Your task to perform on an android device: add a label to a message in the gmail app Image 0: 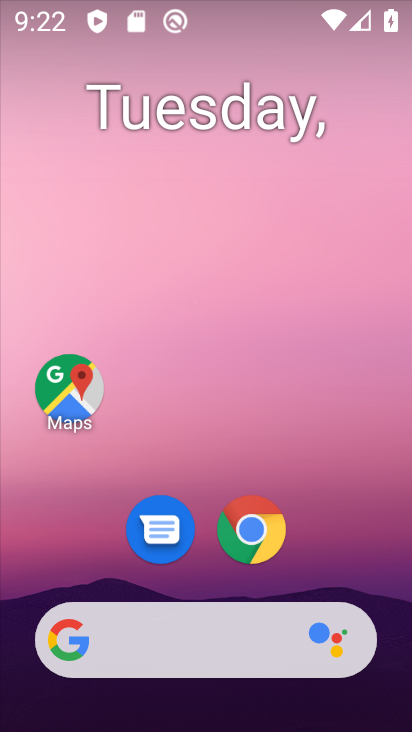
Step 0: drag from (123, 563) to (115, 28)
Your task to perform on an android device: add a label to a message in the gmail app Image 1: 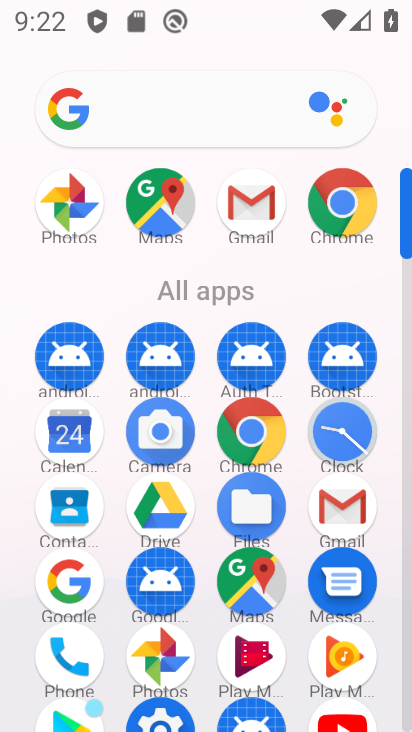
Step 1: click (251, 205)
Your task to perform on an android device: add a label to a message in the gmail app Image 2: 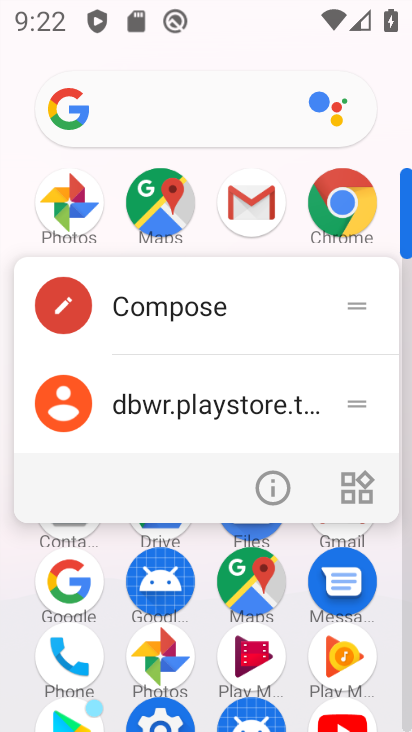
Step 2: click (251, 191)
Your task to perform on an android device: add a label to a message in the gmail app Image 3: 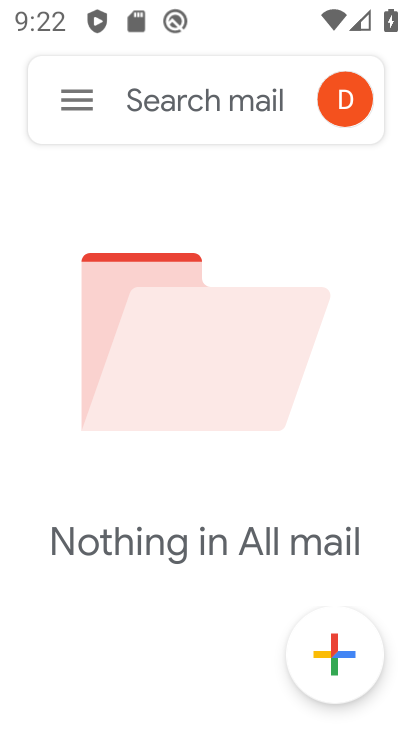
Step 3: click (75, 99)
Your task to perform on an android device: add a label to a message in the gmail app Image 4: 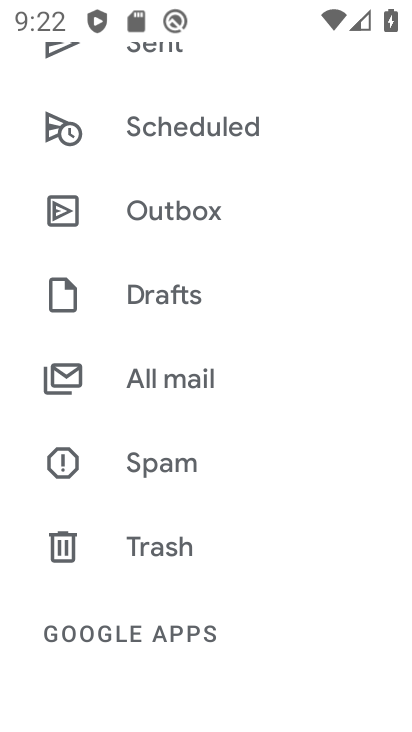
Step 4: drag from (204, 439) to (267, 463)
Your task to perform on an android device: add a label to a message in the gmail app Image 5: 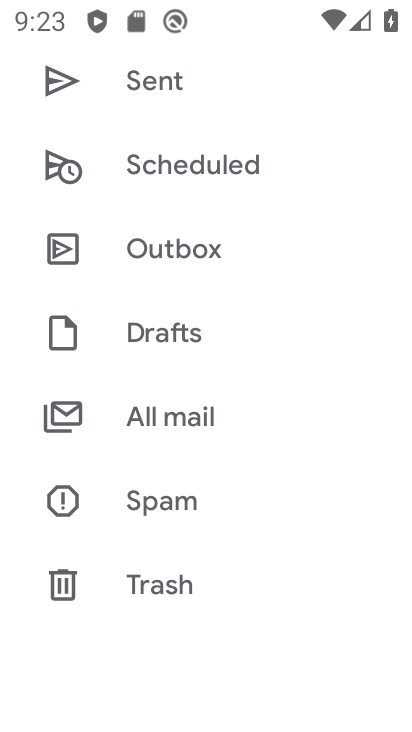
Step 5: click (201, 402)
Your task to perform on an android device: add a label to a message in the gmail app Image 6: 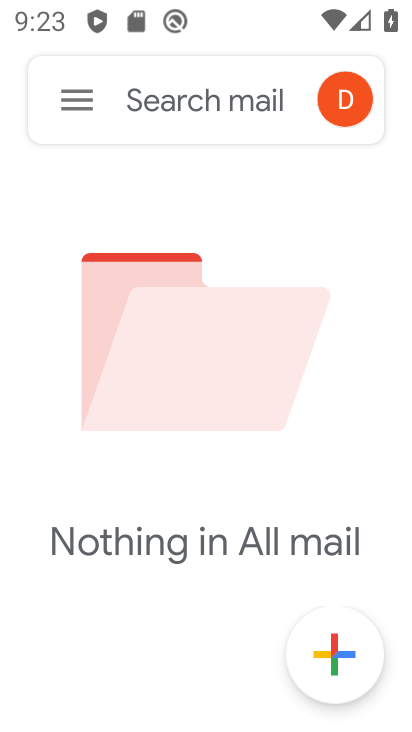
Step 6: task complete